Your task to perform on an android device: What's the US dollar exchange rate against the Brazilian Real? Image 0: 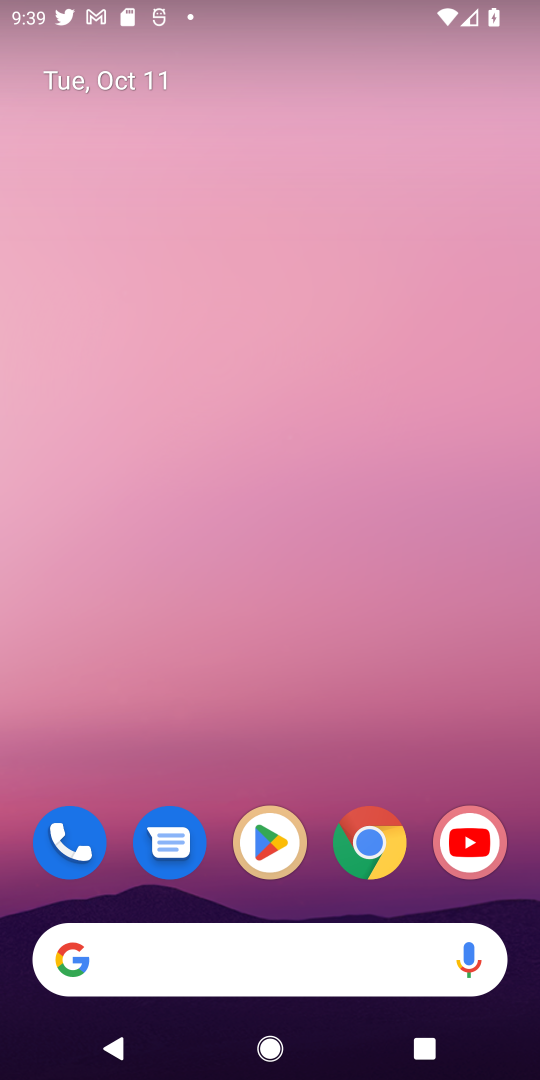
Step 0: click (372, 832)
Your task to perform on an android device: What's the US dollar exchange rate against the Brazilian Real? Image 1: 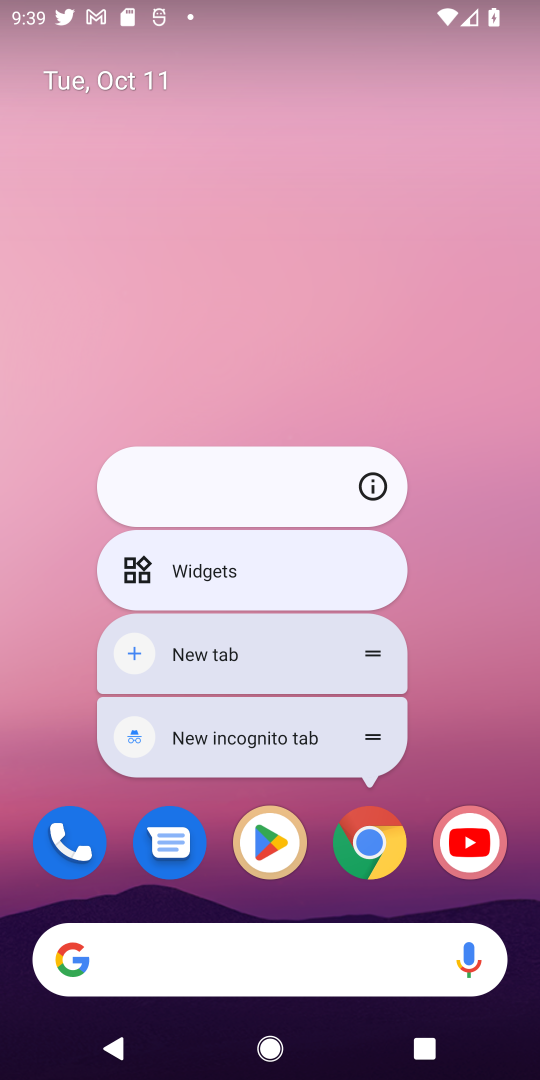
Step 1: click (366, 849)
Your task to perform on an android device: What's the US dollar exchange rate against the Brazilian Real? Image 2: 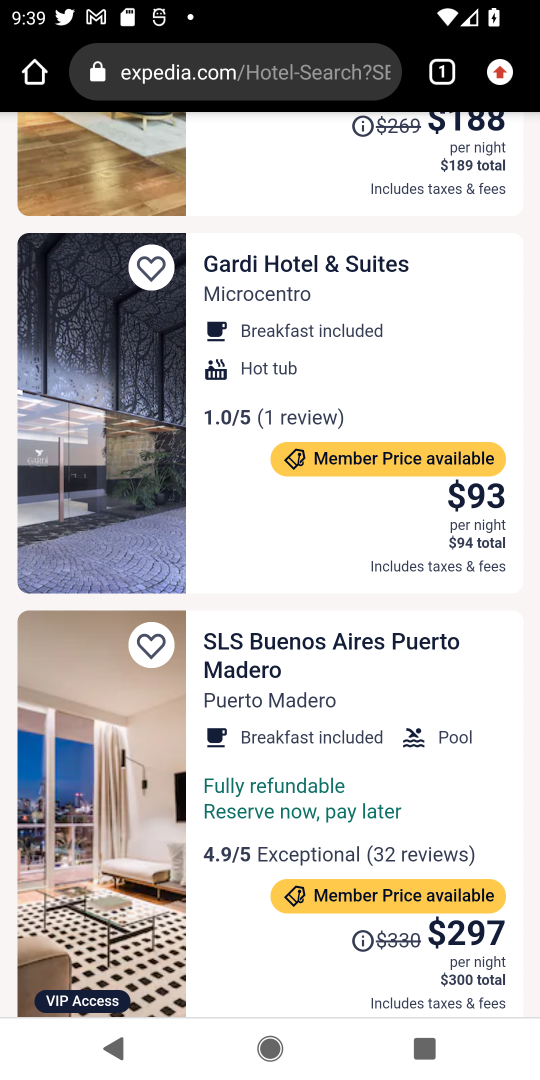
Step 2: click (184, 77)
Your task to perform on an android device: What's the US dollar exchange rate against the Brazilian Real? Image 3: 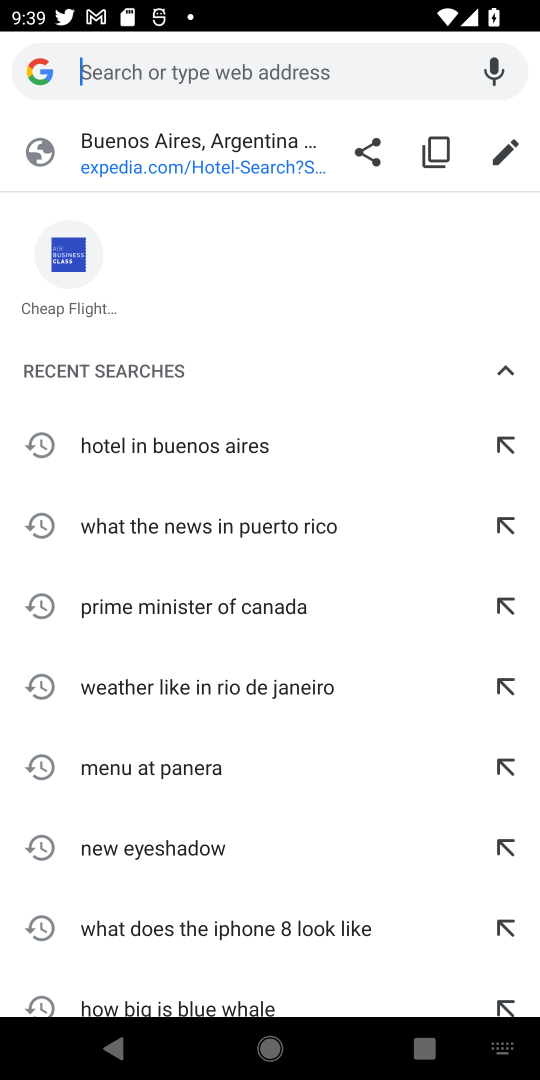
Step 3: type "us dollar exchnge rate"
Your task to perform on an android device: What's the US dollar exchange rate against the Brazilian Real? Image 4: 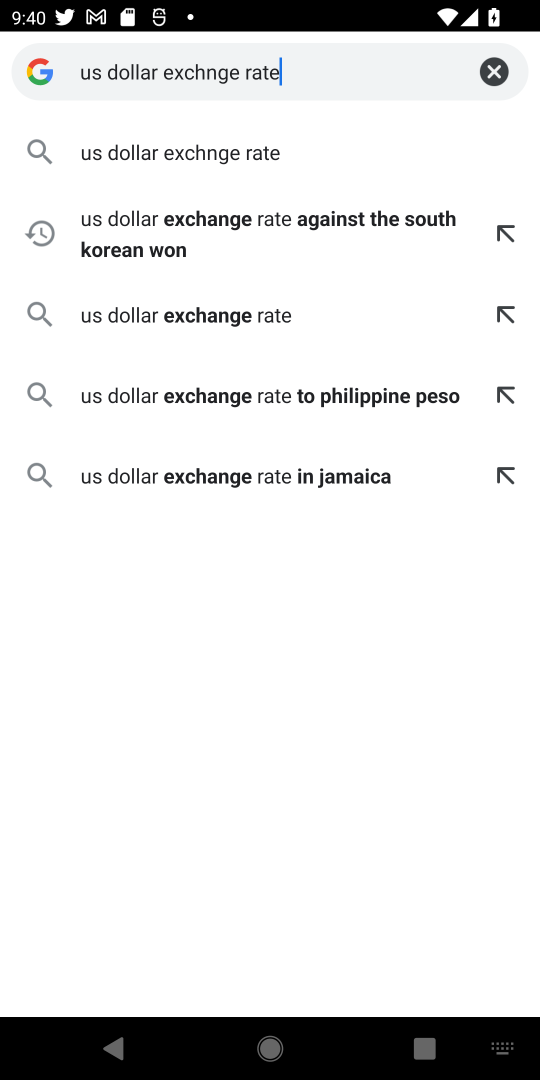
Step 4: type " brazalian real"
Your task to perform on an android device: What's the US dollar exchange rate against the Brazilian Real? Image 5: 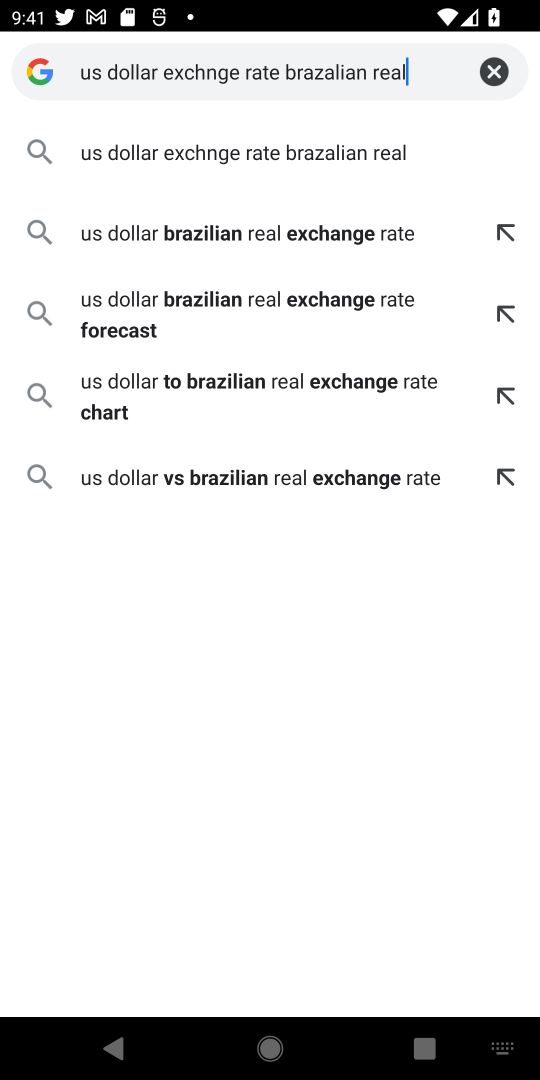
Step 5: click (221, 474)
Your task to perform on an android device: What's the US dollar exchange rate against the Brazilian Real? Image 6: 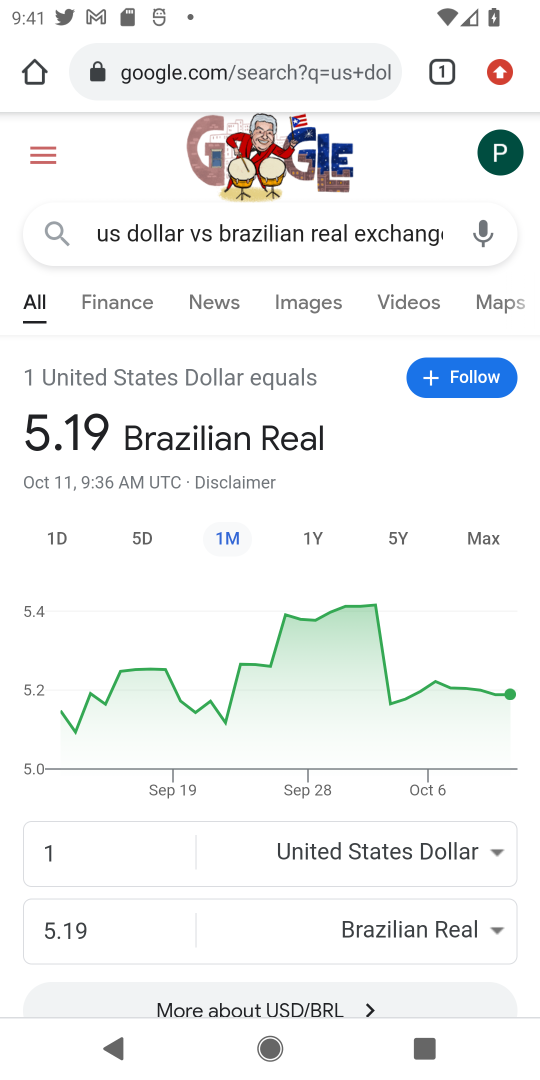
Step 6: drag from (132, 739) to (219, 444)
Your task to perform on an android device: What's the US dollar exchange rate against the Brazilian Real? Image 7: 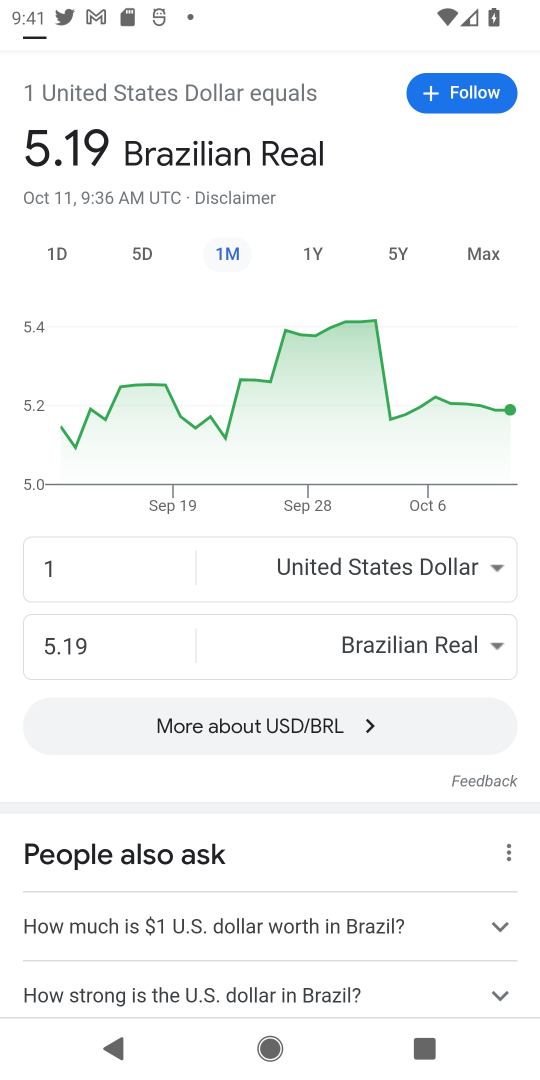
Step 7: drag from (78, 1000) to (300, 438)
Your task to perform on an android device: What's the US dollar exchange rate against the Brazilian Real? Image 8: 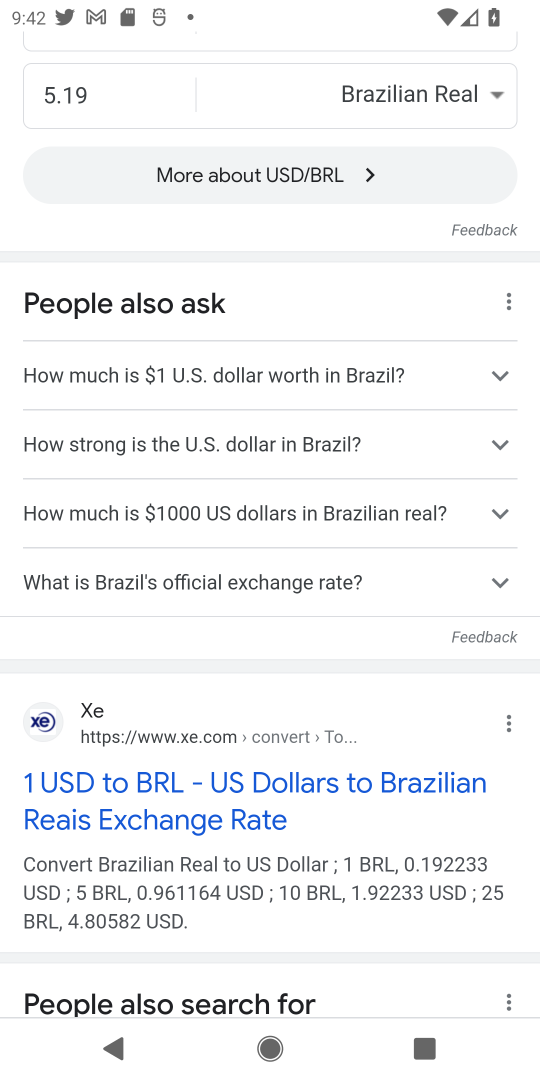
Step 8: click (192, 798)
Your task to perform on an android device: What's the US dollar exchange rate against the Brazilian Real? Image 9: 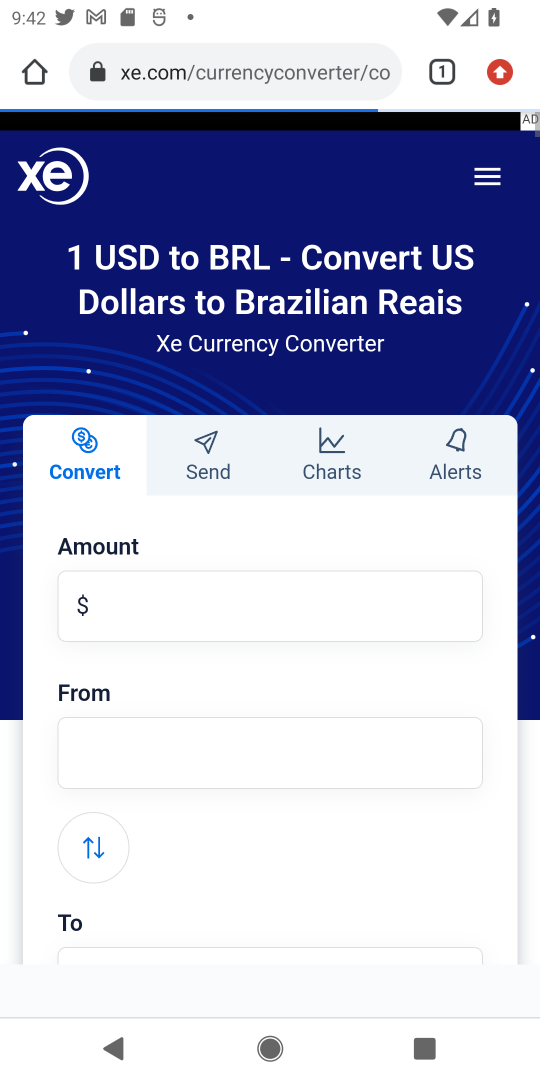
Step 9: click (251, 788)
Your task to perform on an android device: What's the US dollar exchange rate against the Brazilian Real? Image 10: 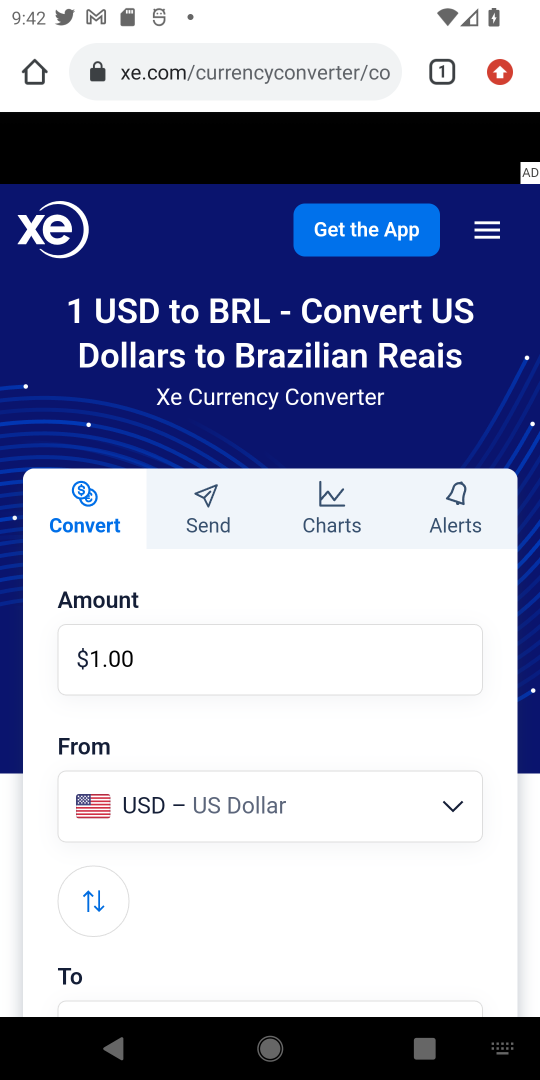
Step 10: drag from (406, 899) to (516, 377)
Your task to perform on an android device: What's the US dollar exchange rate against the Brazilian Real? Image 11: 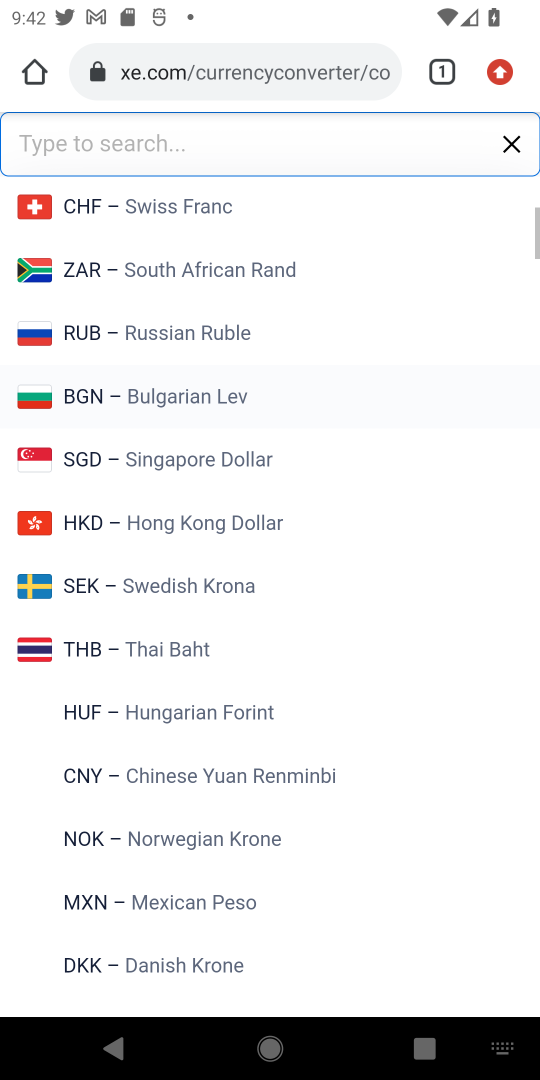
Step 11: drag from (389, 349) to (395, 940)
Your task to perform on an android device: What's the US dollar exchange rate against the Brazilian Real? Image 12: 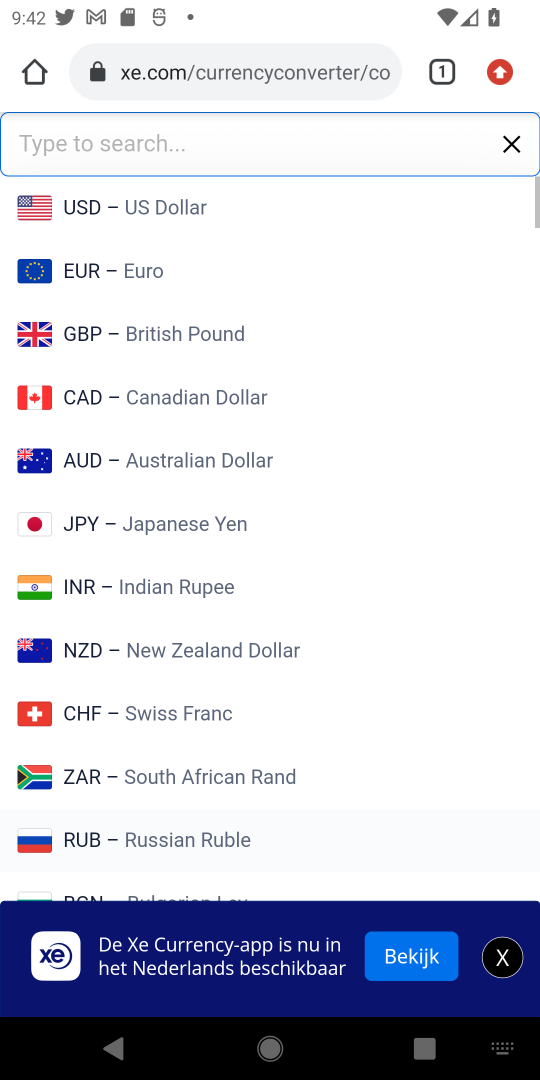
Step 12: drag from (436, 400) to (416, 835)
Your task to perform on an android device: What's the US dollar exchange rate against the Brazilian Real? Image 13: 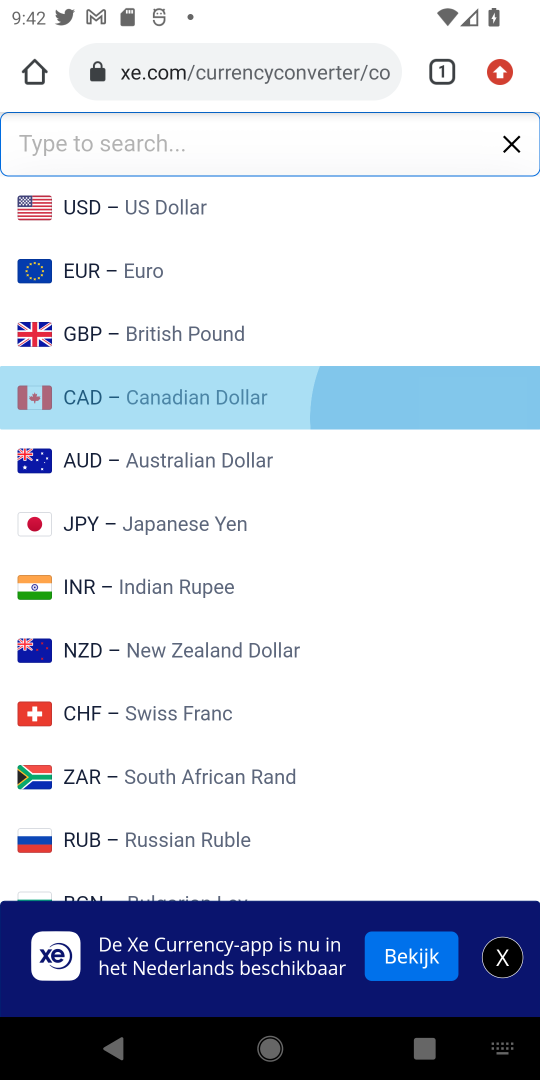
Step 13: click (514, 953)
Your task to perform on an android device: What's the US dollar exchange rate against the Brazilian Real? Image 14: 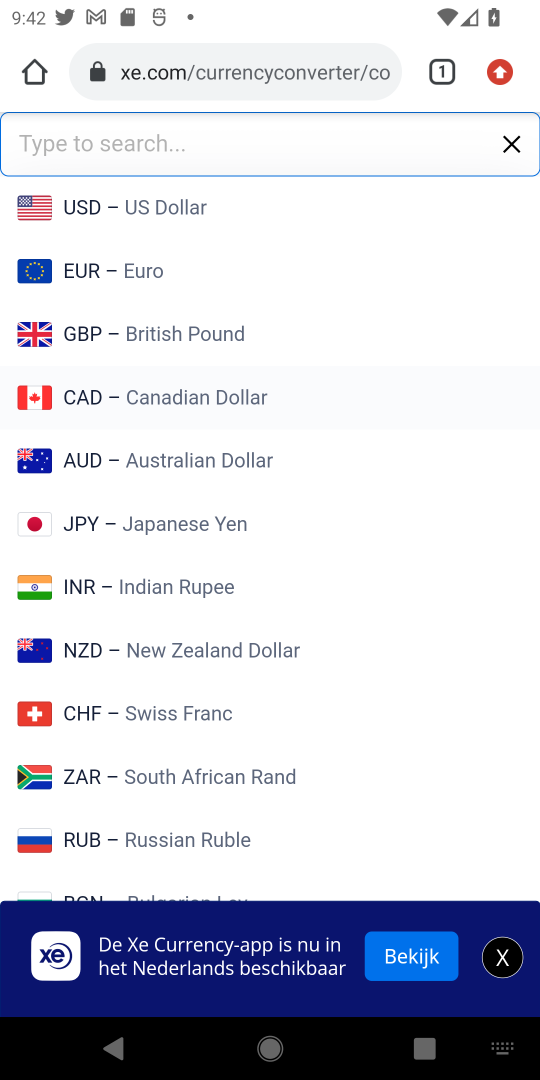
Step 14: click (502, 963)
Your task to perform on an android device: What's the US dollar exchange rate against the Brazilian Real? Image 15: 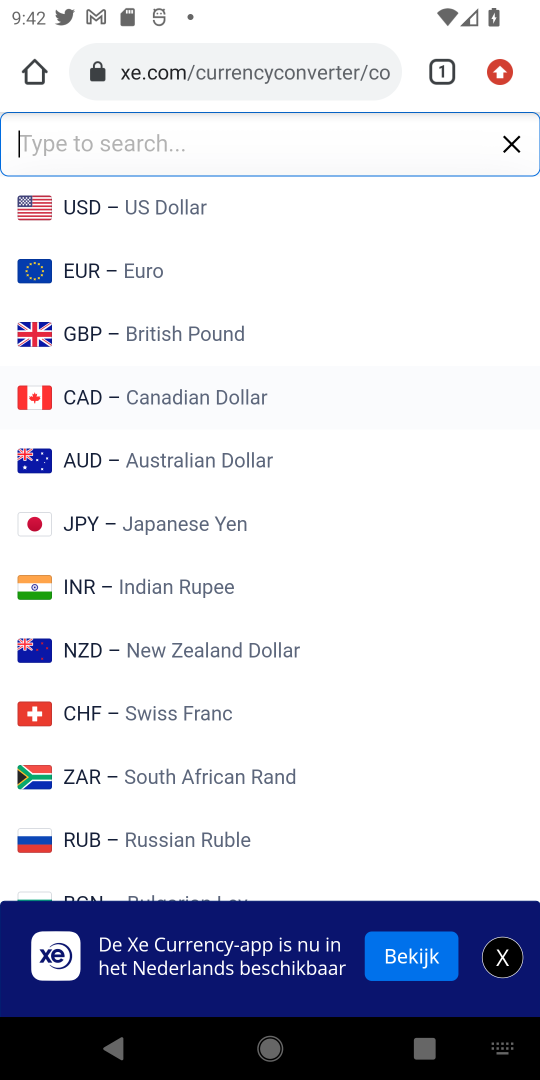
Step 15: click (502, 960)
Your task to perform on an android device: What's the US dollar exchange rate against the Brazilian Real? Image 16: 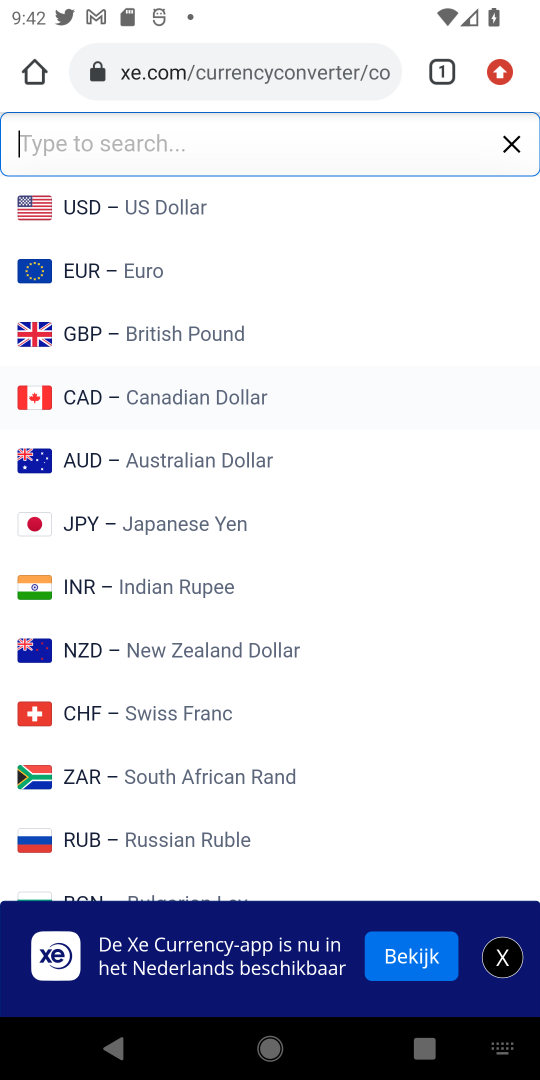
Step 16: task complete